Your task to perform on an android device: refresh tabs in the chrome app Image 0: 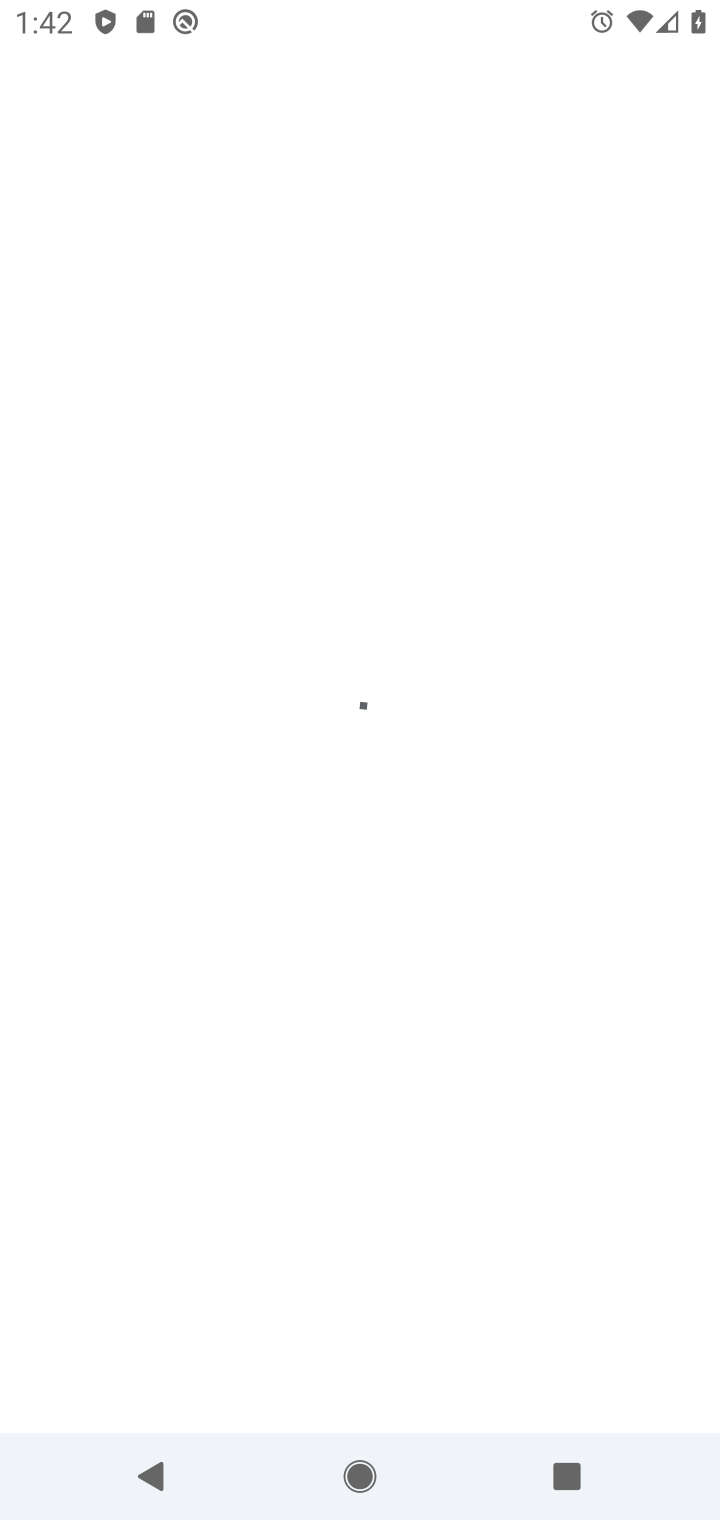
Step 0: press home button
Your task to perform on an android device: refresh tabs in the chrome app Image 1: 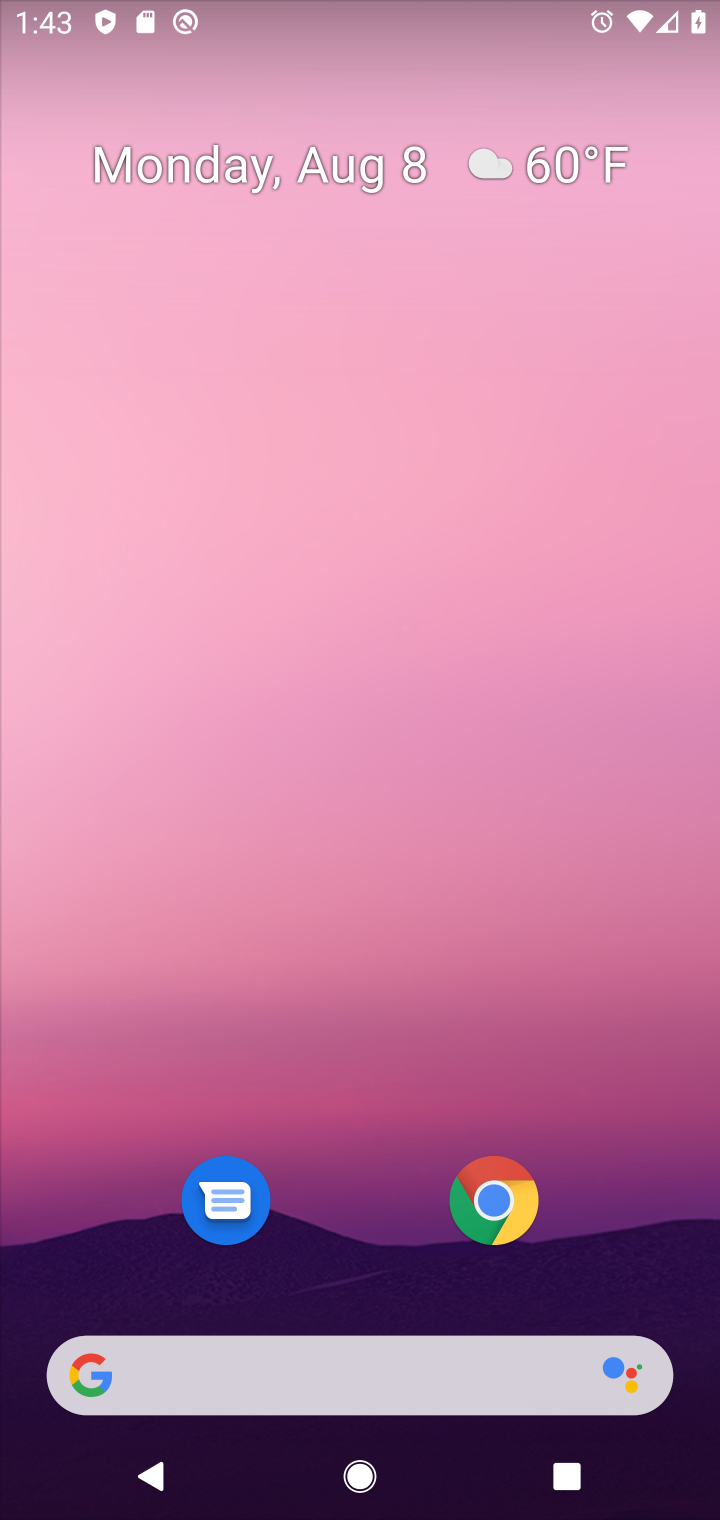
Step 1: drag from (383, 1208) to (436, 136)
Your task to perform on an android device: refresh tabs in the chrome app Image 2: 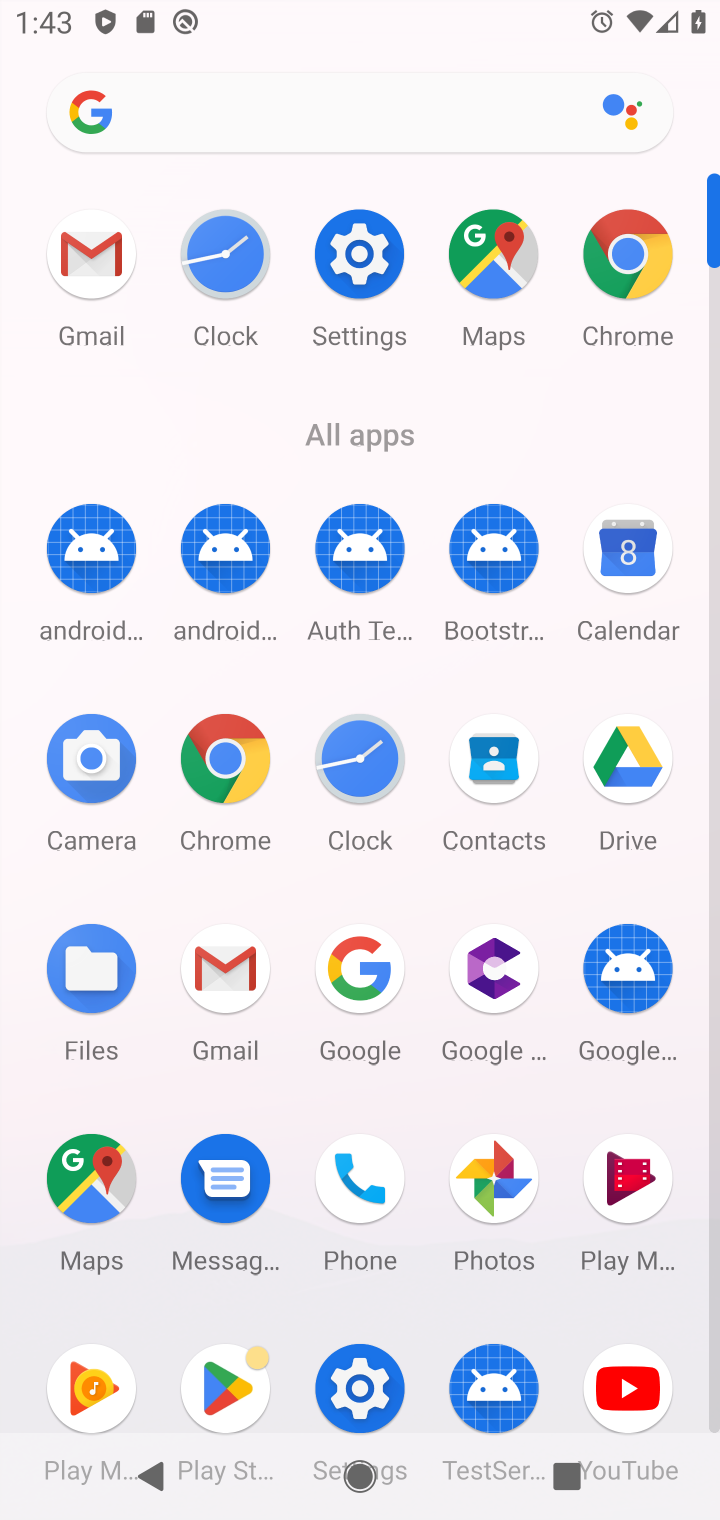
Step 2: click (219, 750)
Your task to perform on an android device: refresh tabs in the chrome app Image 3: 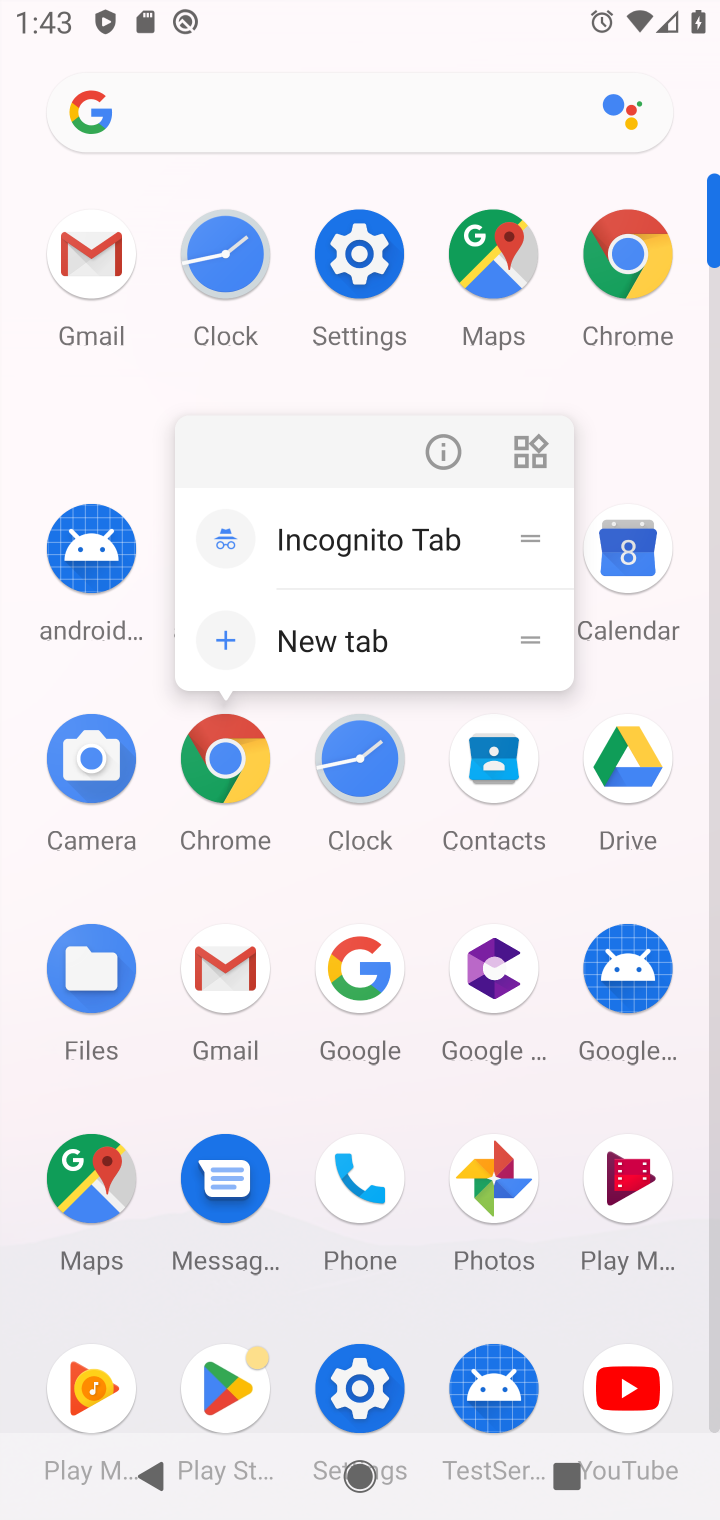
Step 3: click (214, 751)
Your task to perform on an android device: refresh tabs in the chrome app Image 4: 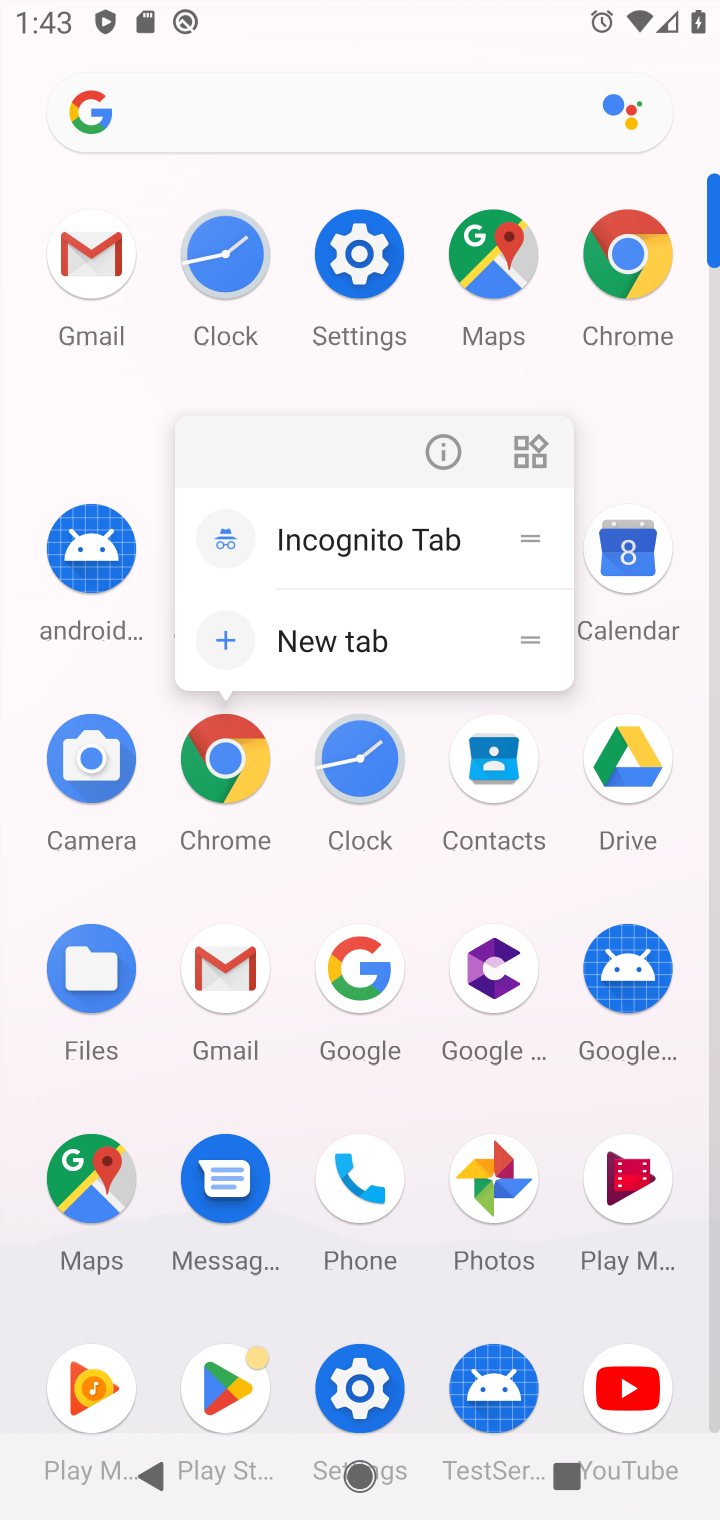
Step 4: click (224, 741)
Your task to perform on an android device: refresh tabs in the chrome app Image 5: 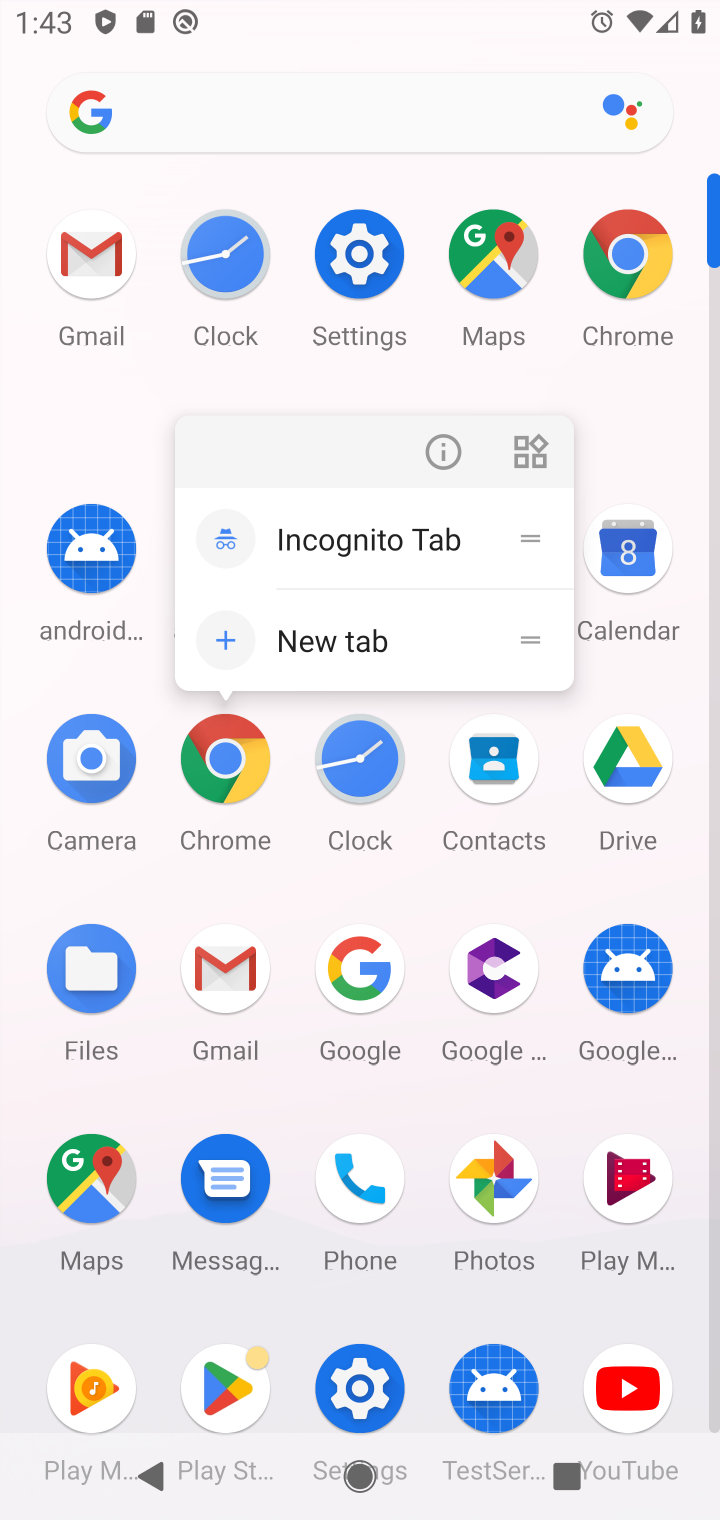
Step 5: click (221, 743)
Your task to perform on an android device: refresh tabs in the chrome app Image 6: 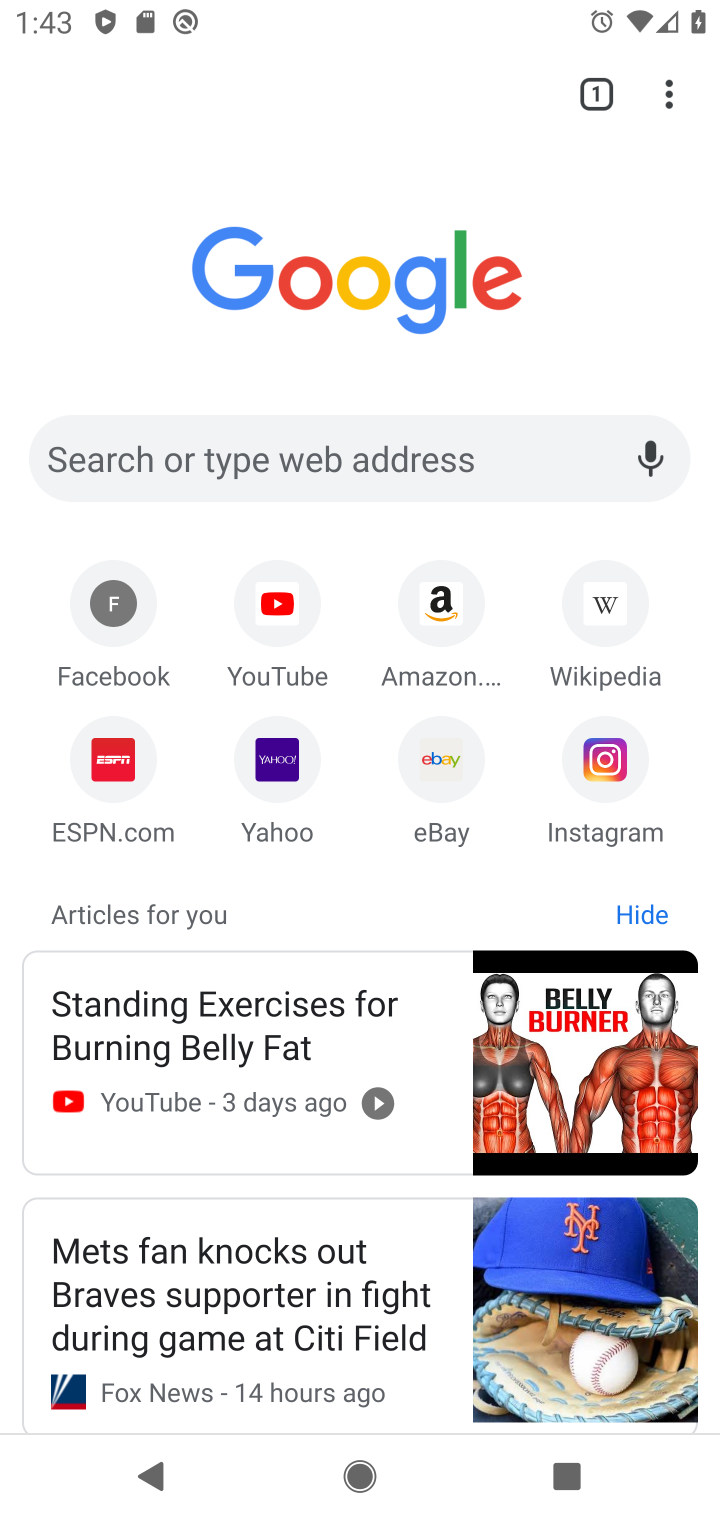
Step 6: click (665, 83)
Your task to perform on an android device: refresh tabs in the chrome app Image 7: 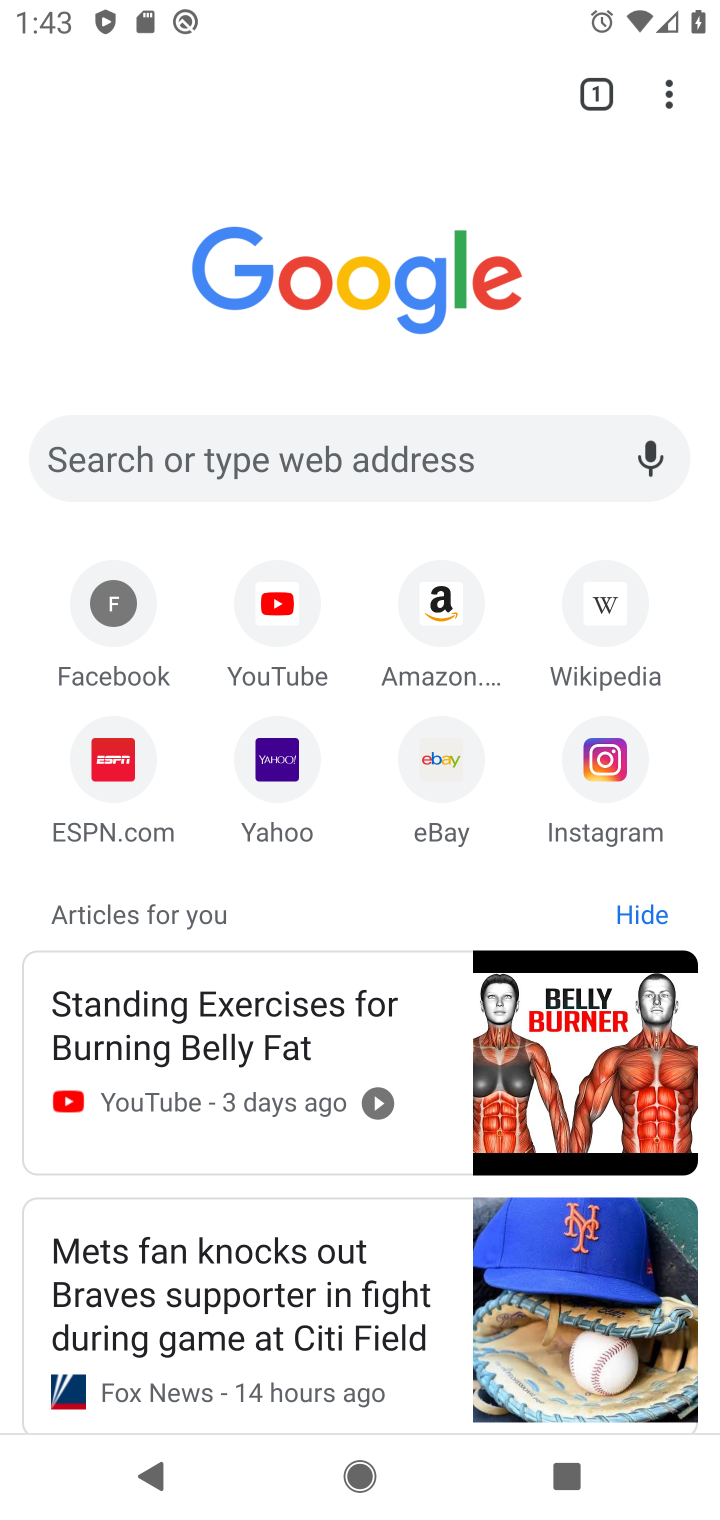
Step 7: task complete